Your task to perform on an android device: change the clock display to analog Image 0: 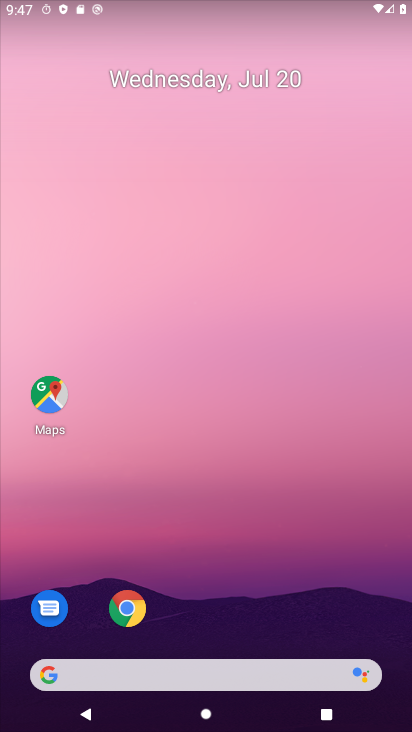
Step 0: drag from (196, 470) to (186, 158)
Your task to perform on an android device: change the clock display to analog Image 1: 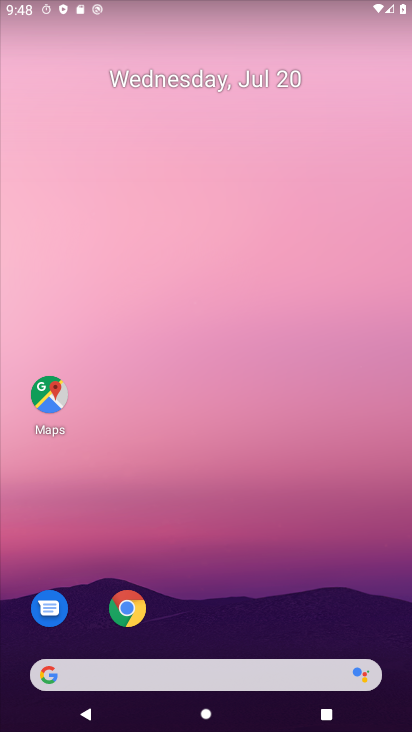
Step 1: drag from (245, 602) to (214, 73)
Your task to perform on an android device: change the clock display to analog Image 2: 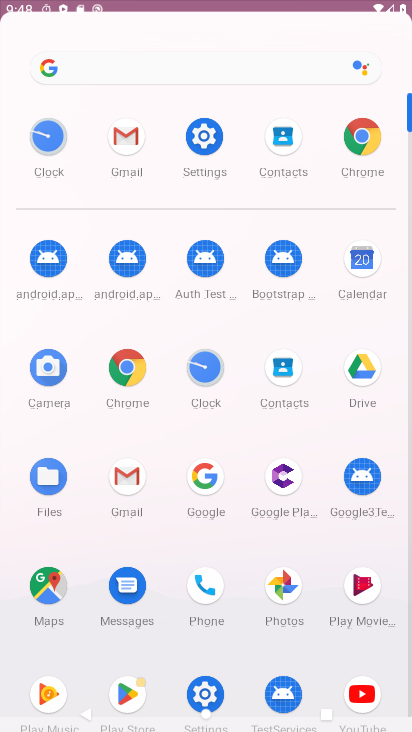
Step 2: drag from (248, 565) to (198, 202)
Your task to perform on an android device: change the clock display to analog Image 3: 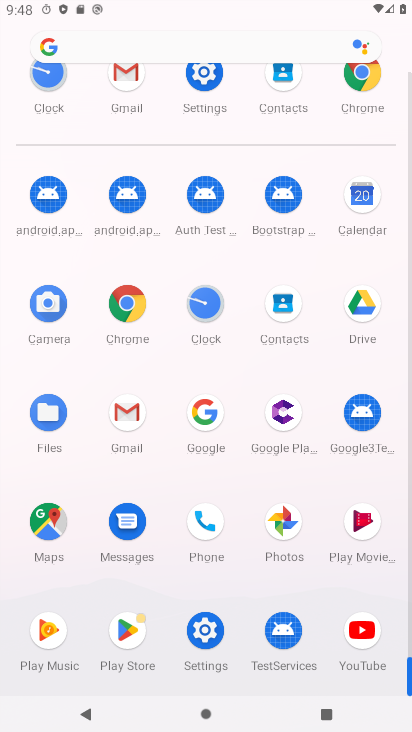
Step 3: click (196, 305)
Your task to perform on an android device: change the clock display to analog Image 4: 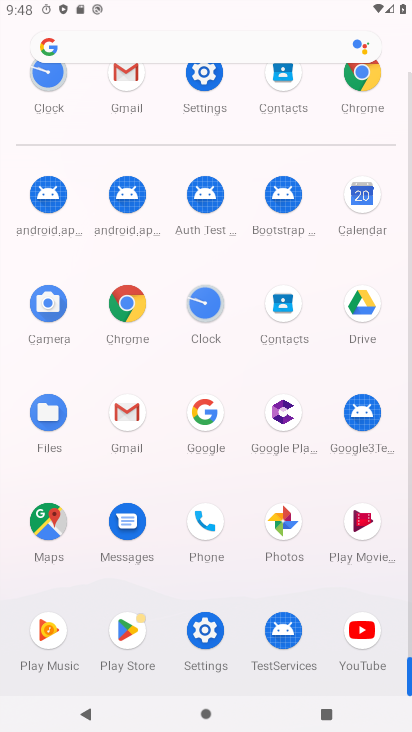
Step 4: click (197, 305)
Your task to perform on an android device: change the clock display to analog Image 5: 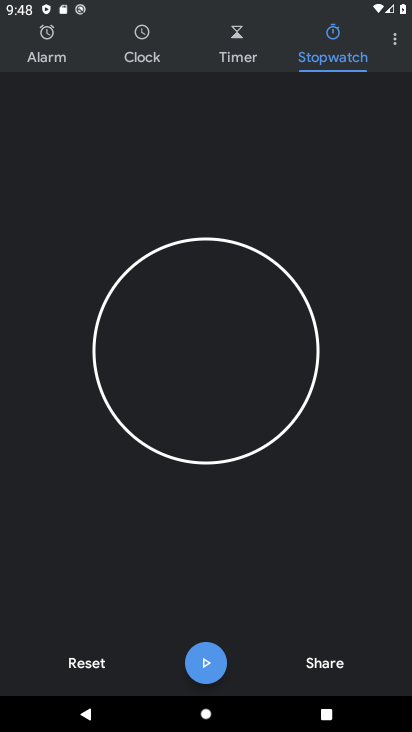
Step 5: click (379, 40)
Your task to perform on an android device: change the clock display to analog Image 6: 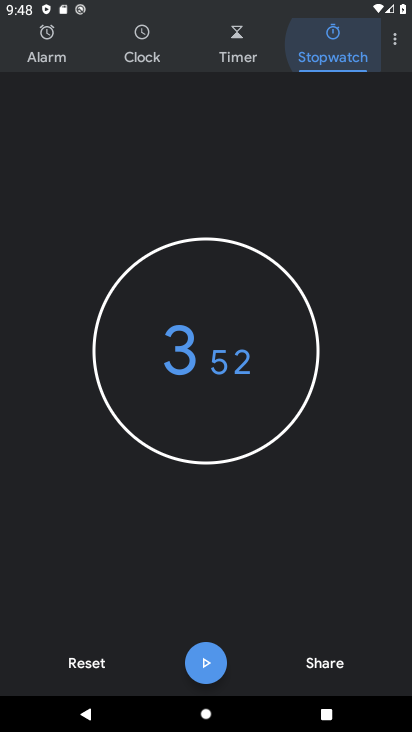
Step 6: click (387, 35)
Your task to perform on an android device: change the clock display to analog Image 7: 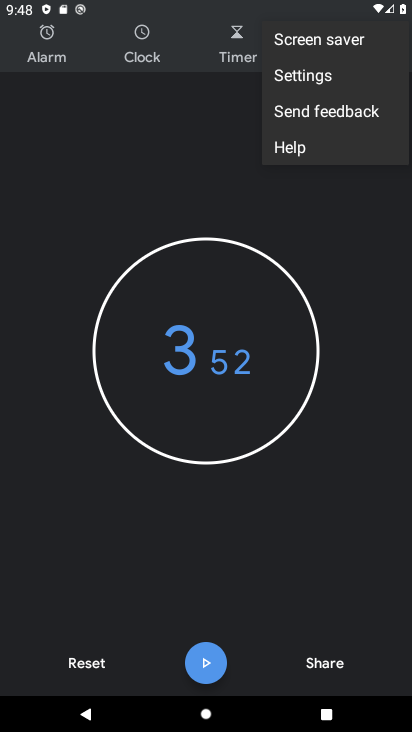
Step 7: click (309, 74)
Your task to perform on an android device: change the clock display to analog Image 8: 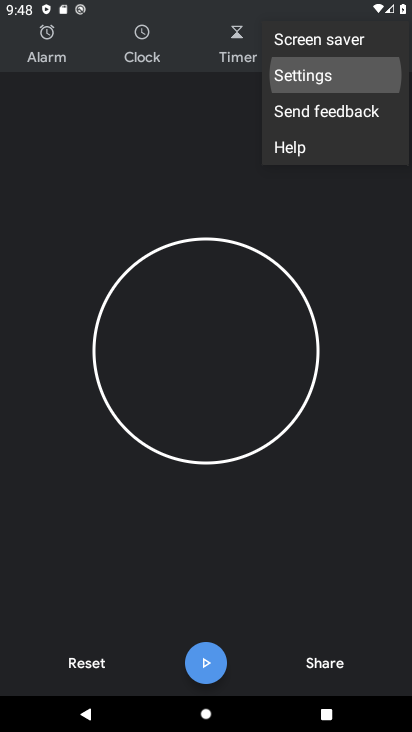
Step 8: click (313, 74)
Your task to perform on an android device: change the clock display to analog Image 9: 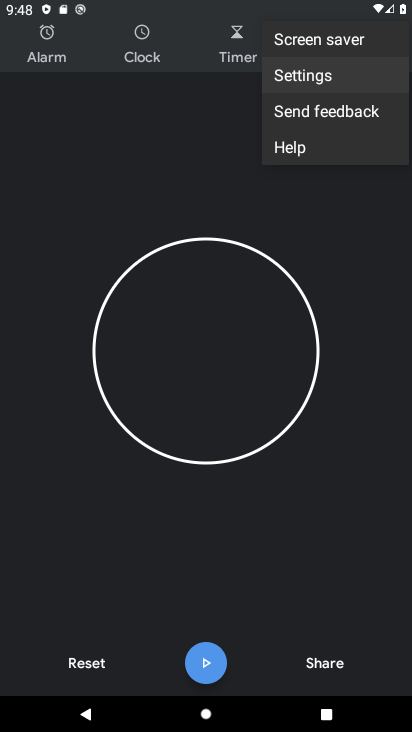
Step 9: click (323, 74)
Your task to perform on an android device: change the clock display to analog Image 10: 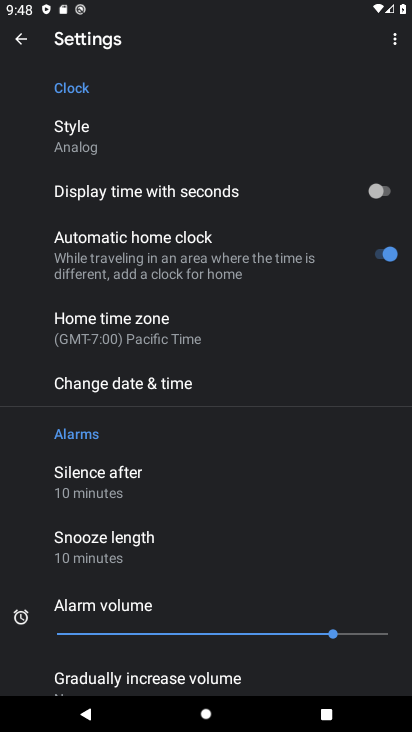
Step 10: click (92, 132)
Your task to perform on an android device: change the clock display to analog Image 11: 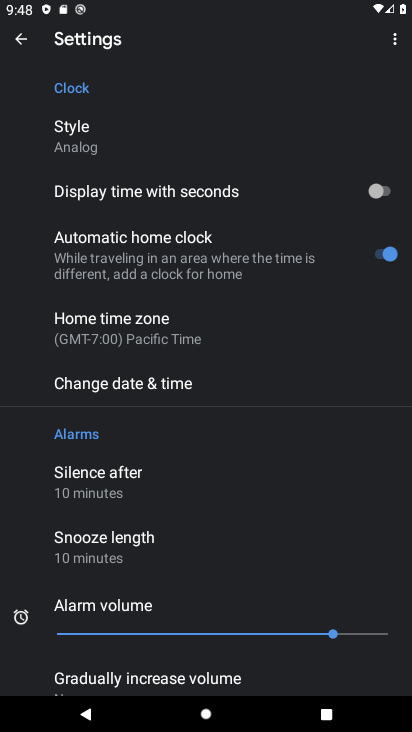
Step 11: click (99, 125)
Your task to perform on an android device: change the clock display to analog Image 12: 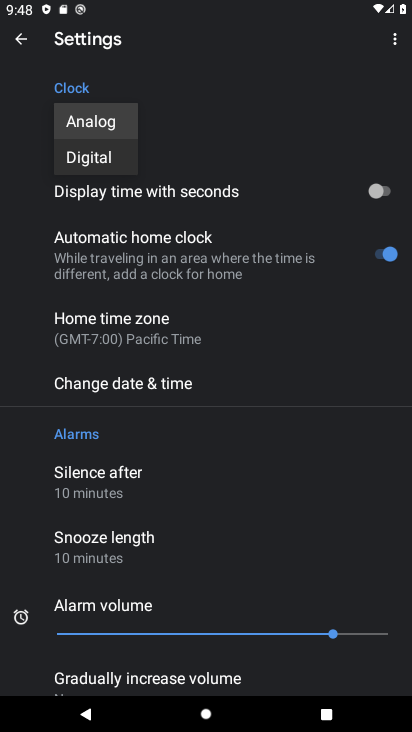
Step 12: click (93, 114)
Your task to perform on an android device: change the clock display to analog Image 13: 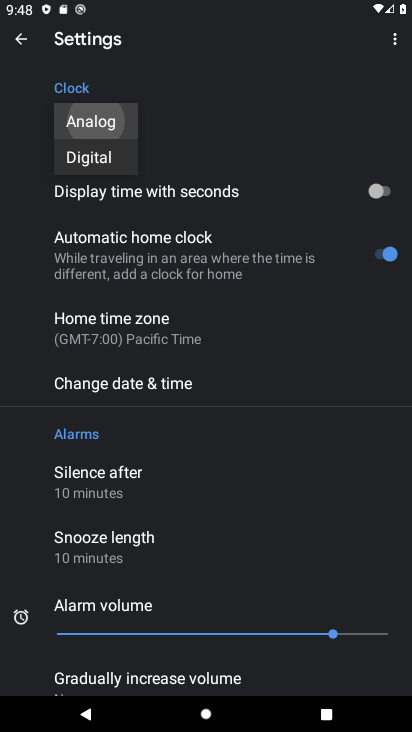
Step 13: click (92, 111)
Your task to perform on an android device: change the clock display to analog Image 14: 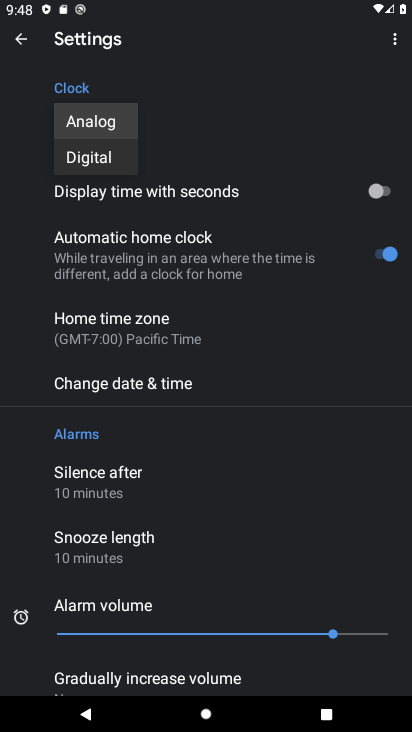
Step 14: click (212, 128)
Your task to perform on an android device: change the clock display to analog Image 15: 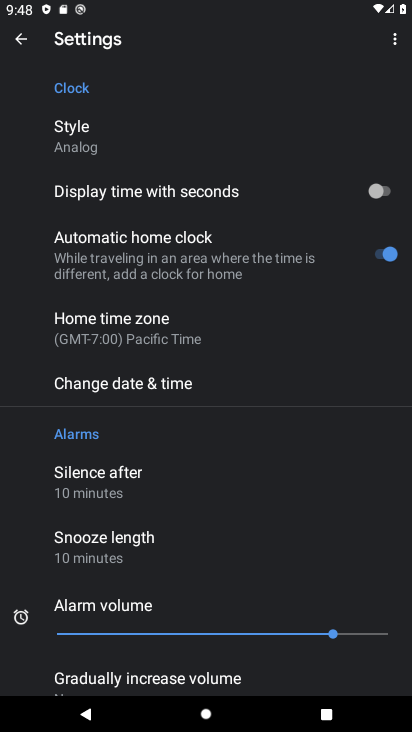
Step 15: task complete